Your task to perform on an android device: Check the weather Image 0: 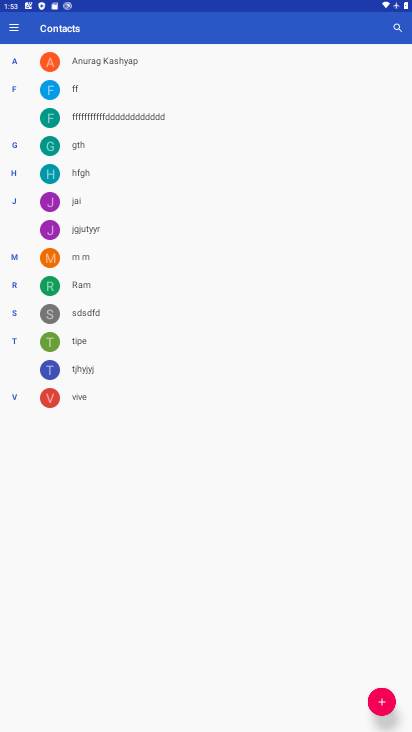
Step 0: press home button
Your task to perform on an android device: Check the weather Image 1: 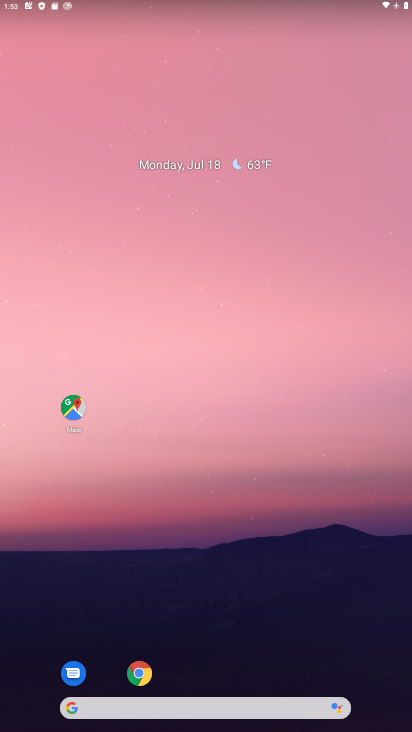
Step 1: drag from (211, 668) to (233, 100)
Your task to perform on an android device: Check the weather Image 2: 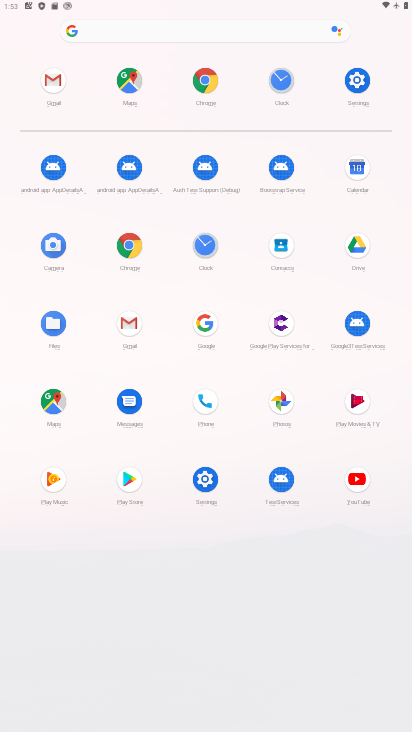
Step 2: click (121, 247)
Your task to perform on an android device: Check the weather Image 3: 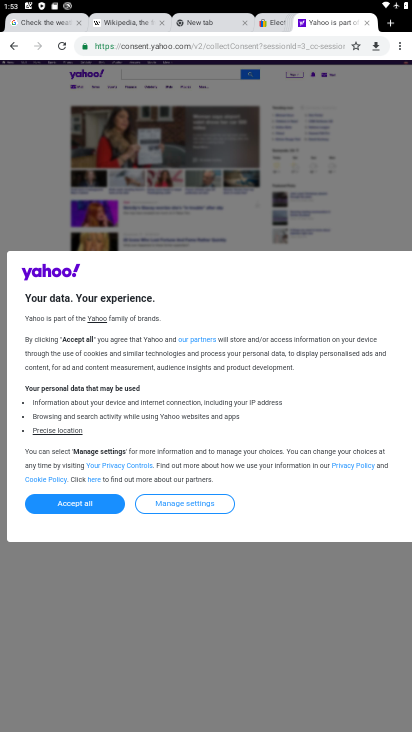
Step 3: click (391, 27)
Your task to perform on an android device: Check the weather Image 4: 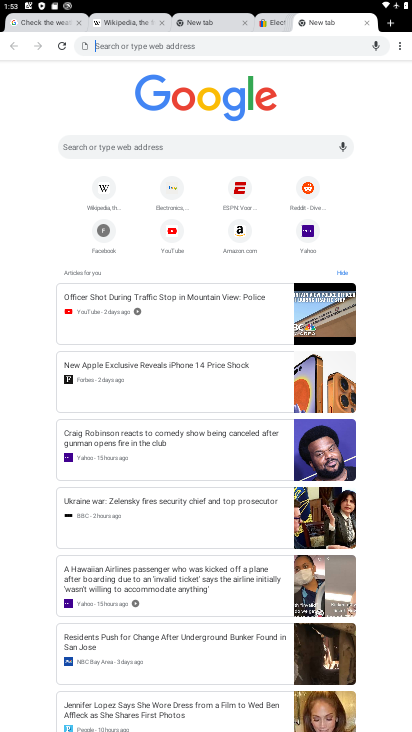
Step 4: click (186, 140)
Your task to perform on an android device: Check the weather Image 5: 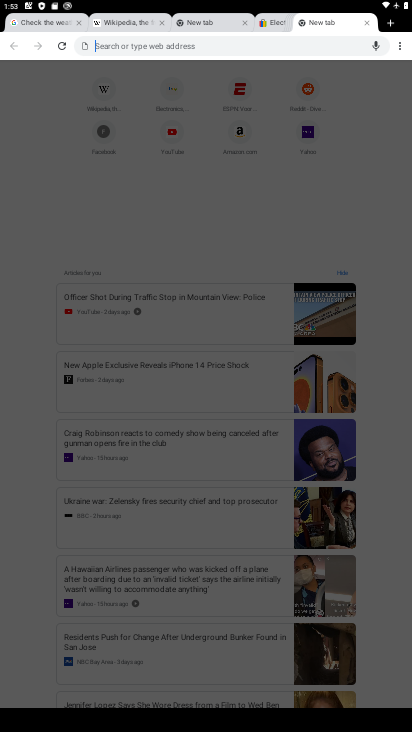
Step 5: type "Check the weather "
Your task to perform on an android device: Check the weather Image 6: 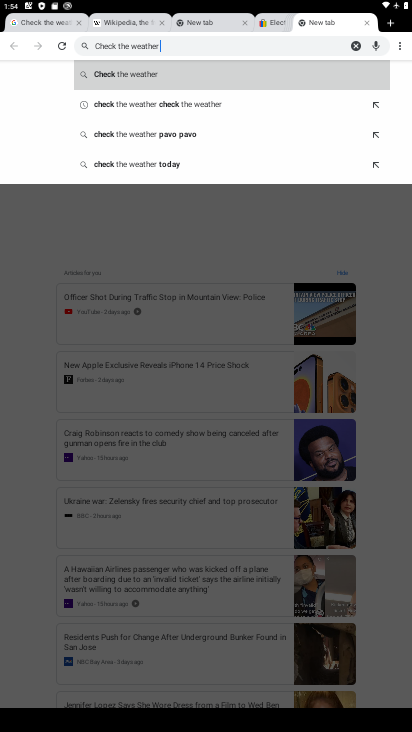
Step 6: click (227, 71)
Your task to perform on an android device: Check the weather Image 7: 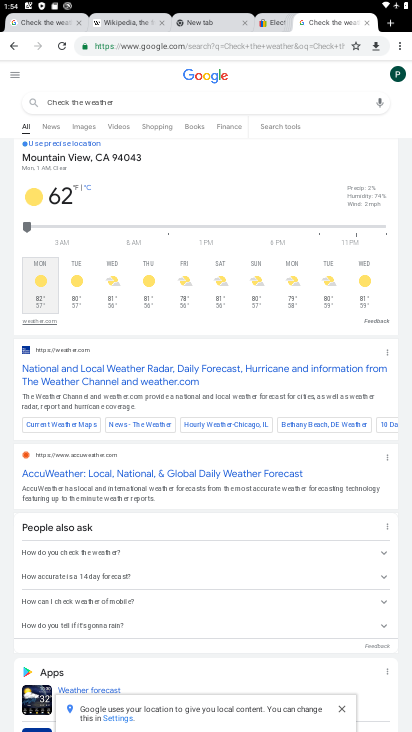
Step 7: task complete